Your task to perform on an android device: toggle data saver in the chrome app Image 0: 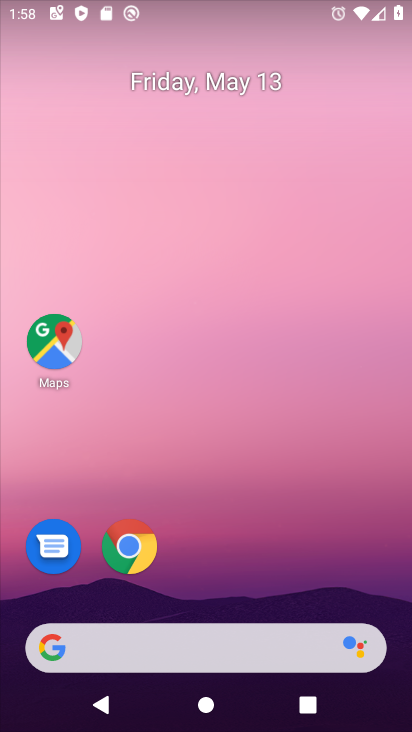
Step 0: drag from (296, 588) to (345, 75)
Your task to perform on an android device: toggle data saver in the chrome app Image 1: 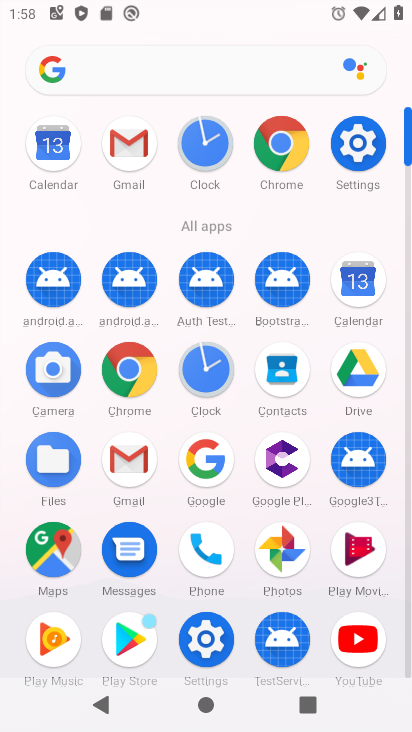
Step 1: click (129, 372)
Your task to perform on an android device: toggle data saver in the chrome app Image 2: 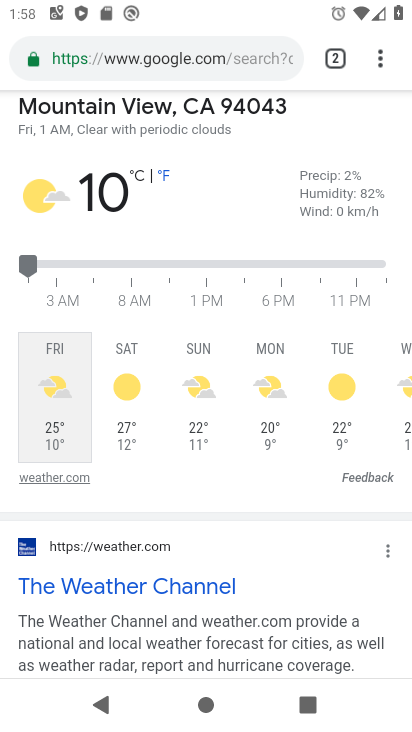
Step 2: click (384, 52)
Your task to perform on an android device: toggle data saver in the chrome app Image 3: 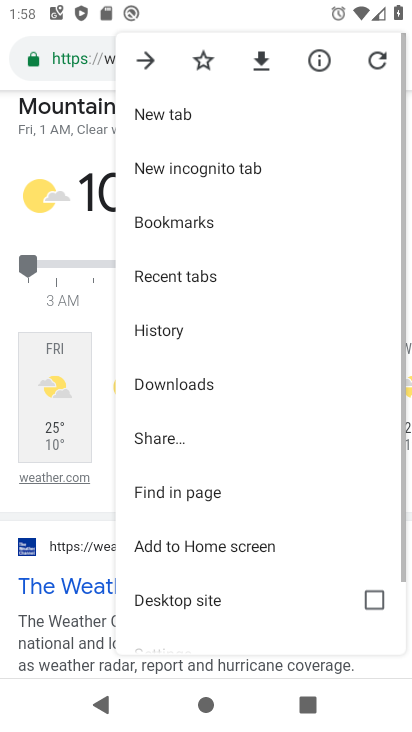
Step 3: drag from (215, 570) to (305, 133)
Your task to perform on an android device: toggle data saver in the chrome app Image 4: 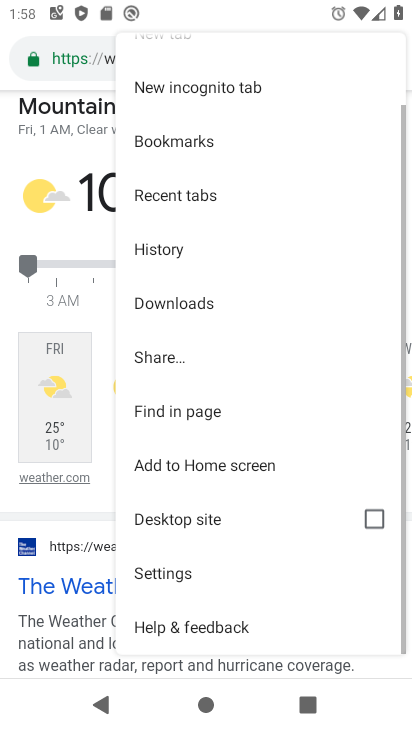
Step 4: click (186, 564)
Your task to perform on an android device: toggle data saver in the chrome app Image 5: 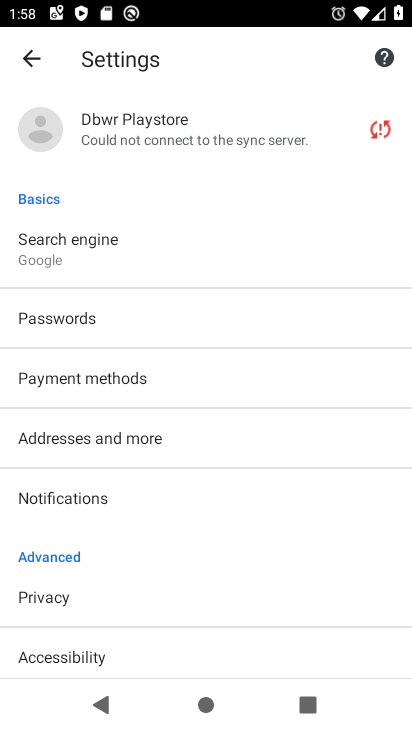
Step 5: drag from (206, 623) to (258, 211)
Your task to perform on an android device: toggle data saver in the chrome app Image 6: 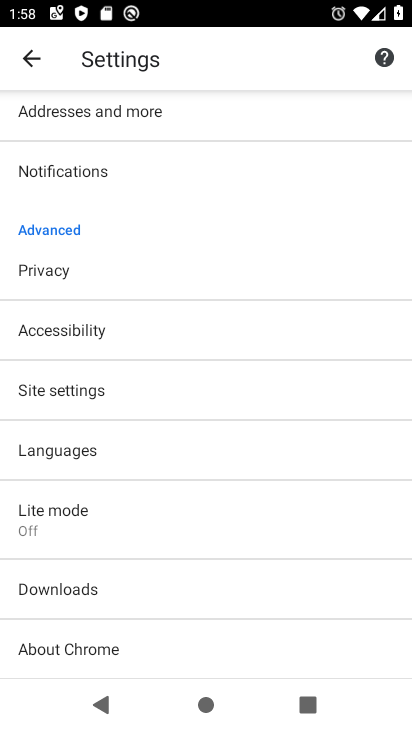
Step 6: click (84, 518)
Your task to perform on an android device: toggle data saver in the chrome app Image 7: 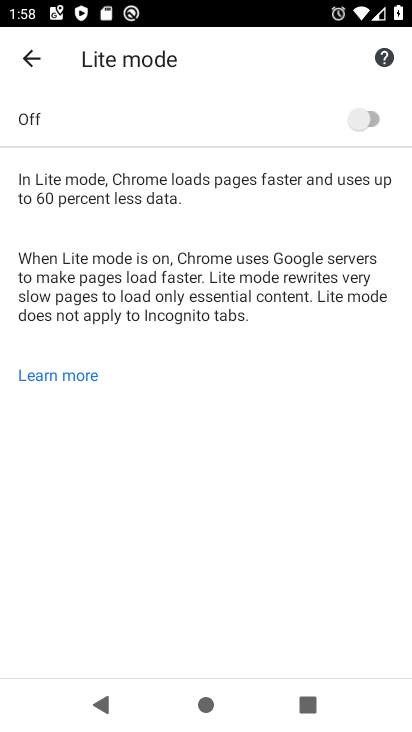
Step 7: click (369, 126)
Your task to perform on an android device: toggle data saver in the chrome app Image 8: 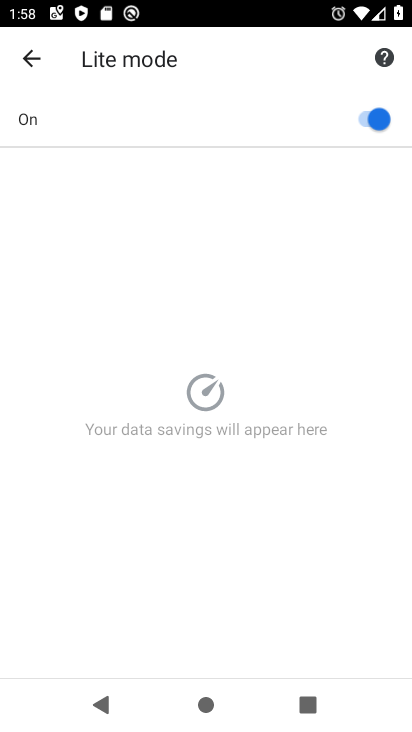
Step 8: task complete